Your task to perform on an android device: When is my next meeting? Image 0: 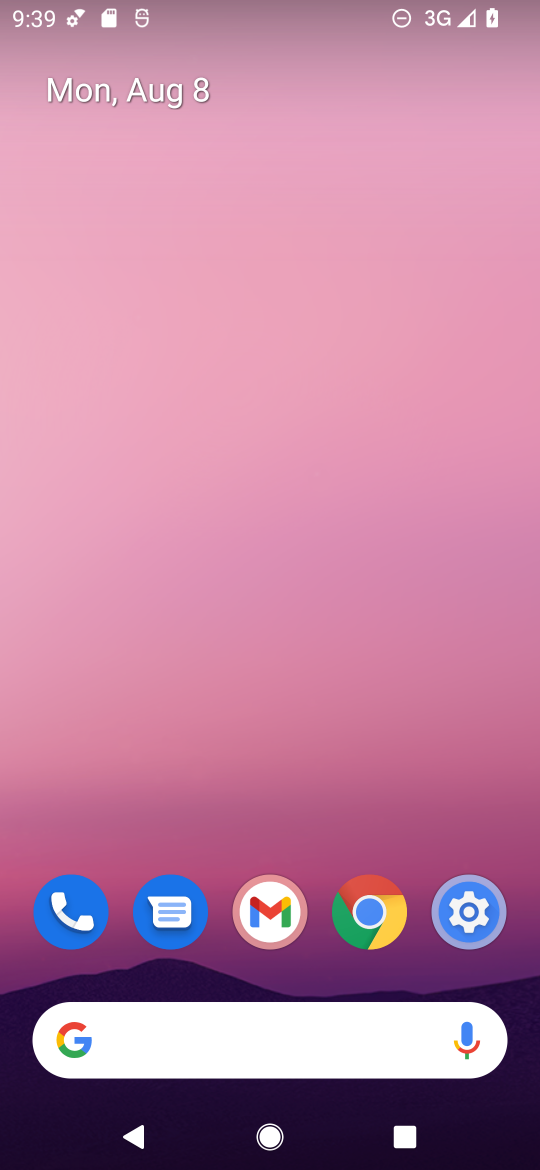
Step 0: drag from (538, 964) to (297, 5)
Your task to perform on an android device: When is my next meeting? Image 1: 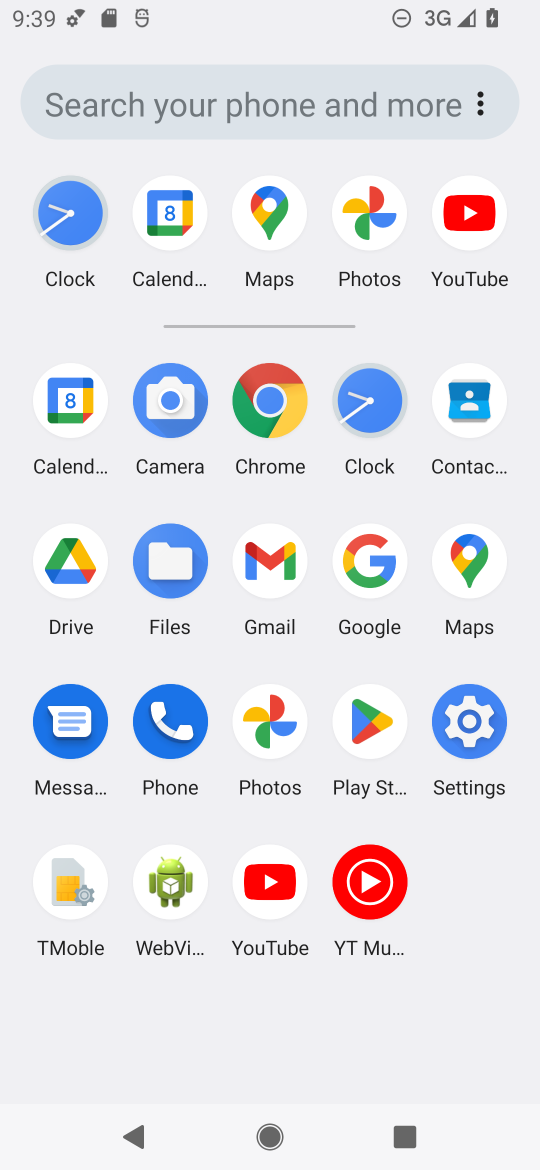
Step 1: click (51, 402)
Your task to perform on an android device: When is my next meeting? Image 2: 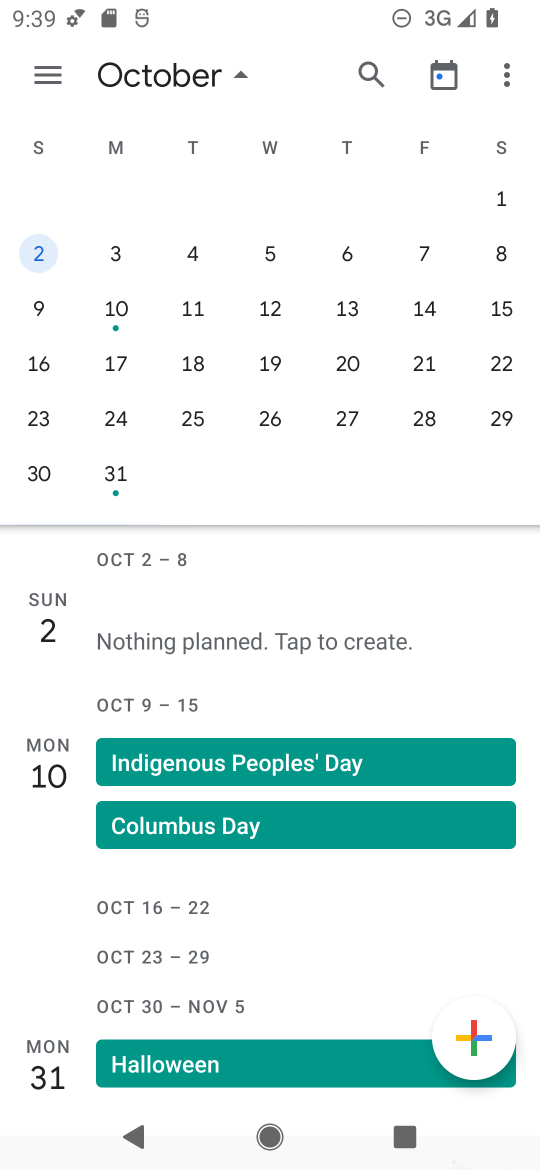
Step 2: task complete